Your task to perform on an android device: turn smart compose on in the gmail app Image 0: 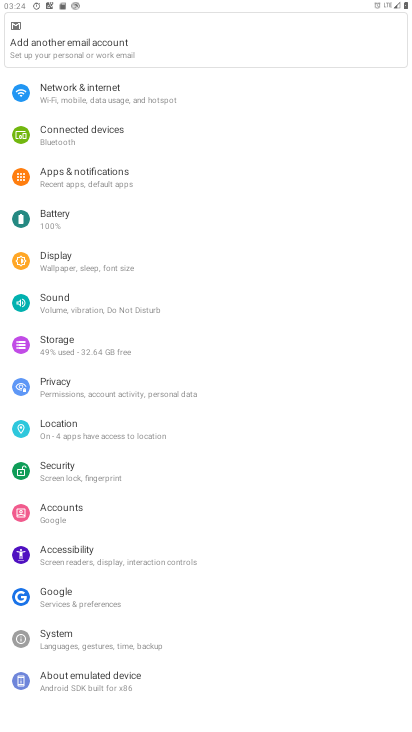
Step 0: press home button
Your task to perform on an android device: turn smart compose on in the gmail app Image 1: 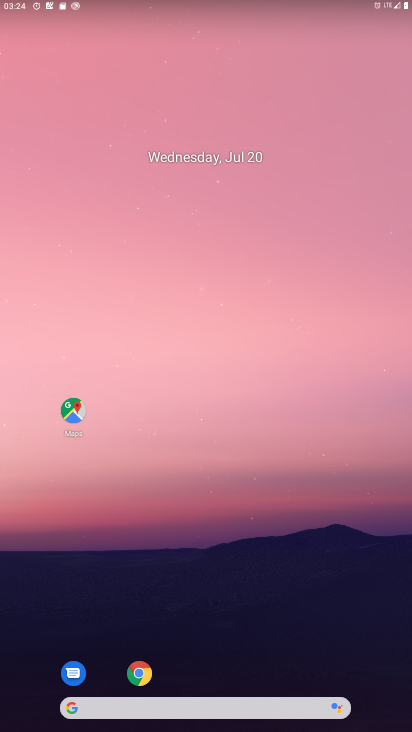
Step 1: drag from (192, 674) to (204, 37)
Your task to perform on an android device: turn smart compose on in the gmail app Image 2: 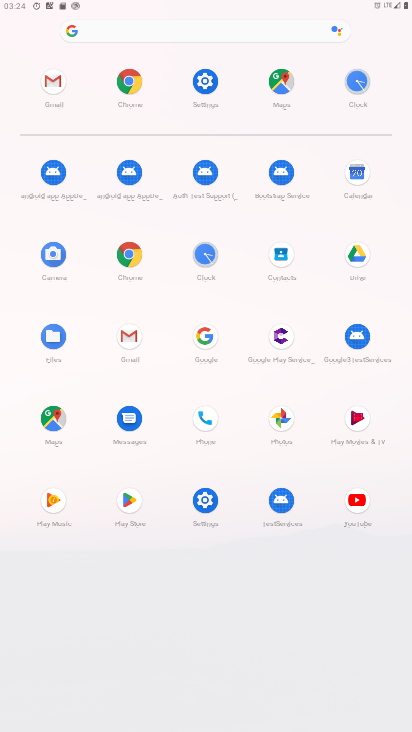
Step 2: click (132, 342)
Your task to perform on an android device: turn smart compose on in the gmail app Image 3: 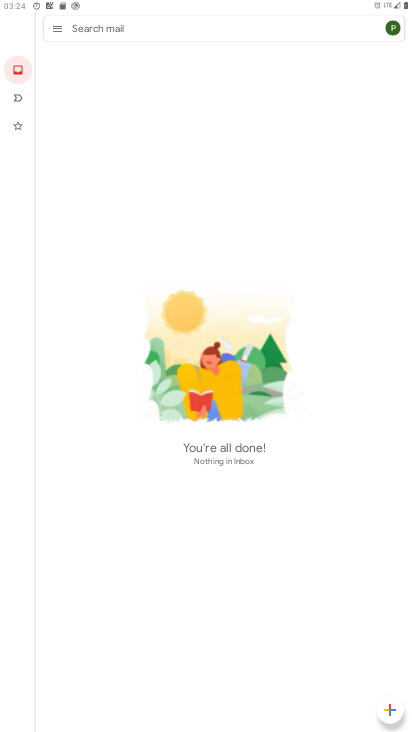
Step 3: click (53, 25)
Your task to perform on an android device: turn smart compose on in the gmail app Image 4: 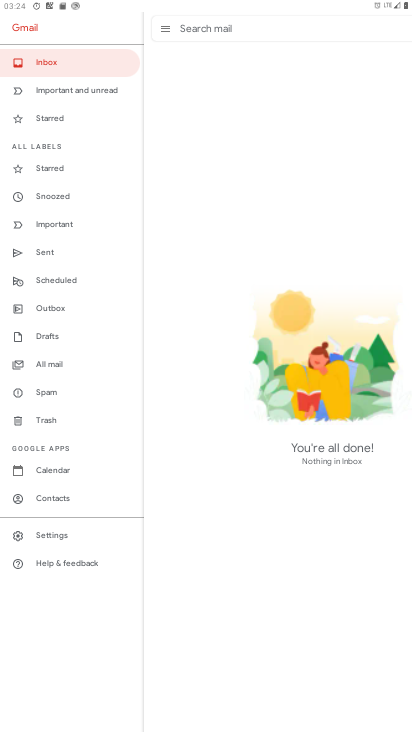
Step 4: click (60, 539)
Your task to perform on an android device: turn smart compose on in the gmail app Image 5: 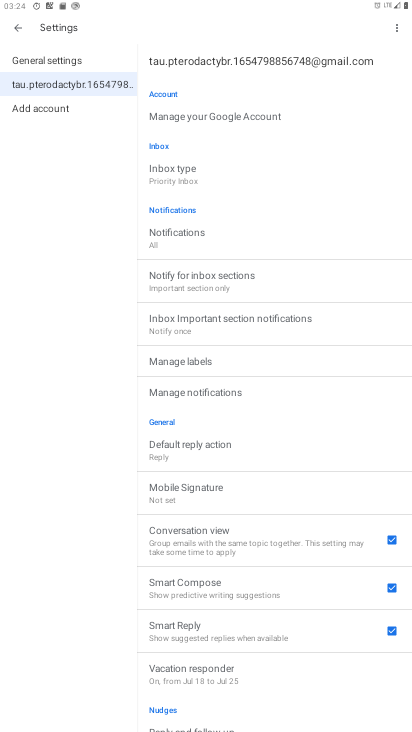
Step 5: task complete